Your task to perform on an android device: Go to Android settings Image 0: 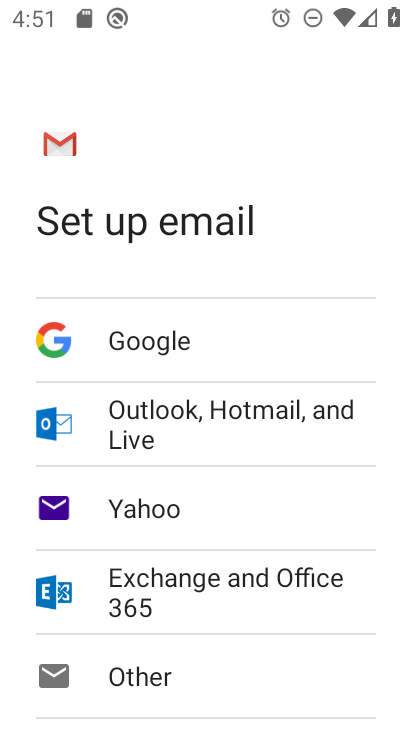
Step 0: press home button
Your task to perform on an android device: Go to Android settings Image 1: 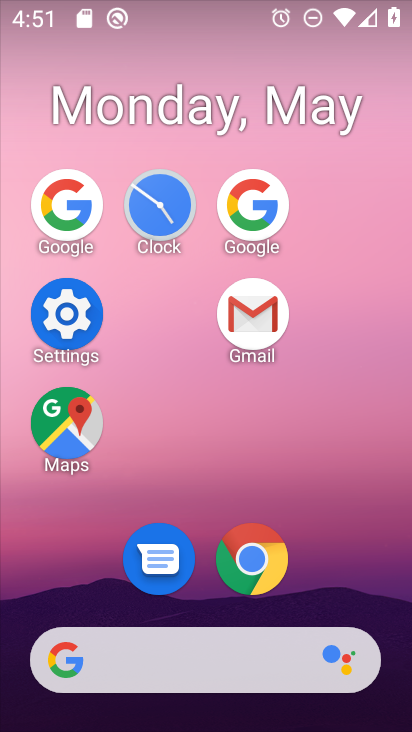
Step 1: click (82, 304)
Your task to perform on an android device: Go to Android settings Image 2: 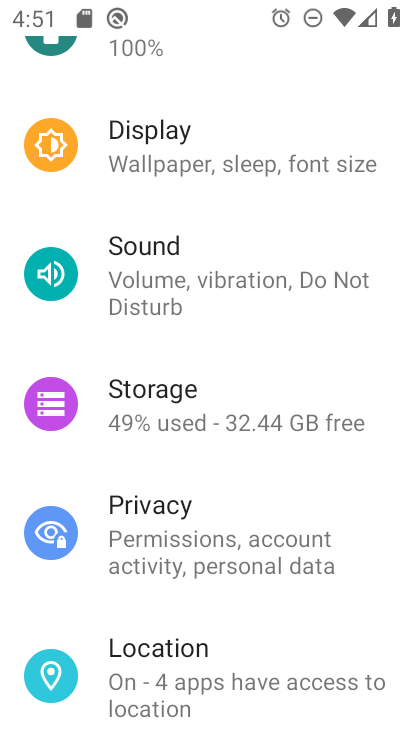
Step 2: task complete